Your task to perform on an android device: change text size in settings app Image 0: 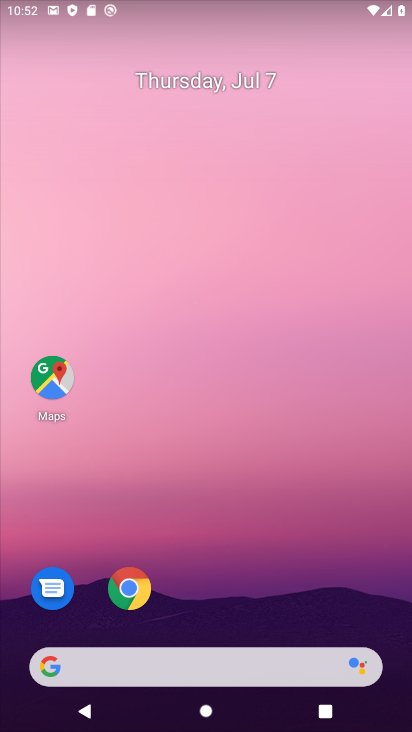
Step 0: drag from (233, 643) to (168, 148)
Your task to perform on an android device: change text size in settings app Image 1: 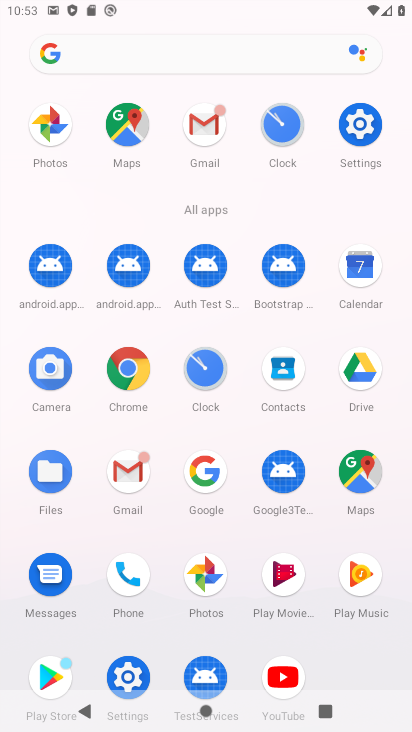
Step 1: click (354, 121)
Your task to perform on an android device: change text size in settings app Image 2: 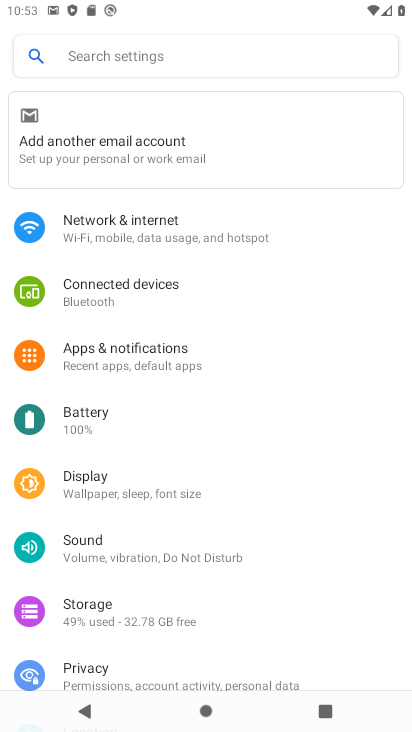
Step 2: drag from (181, 553) to (149, 306)
Your task to perform on an android device: change text size in settings app Image 3: 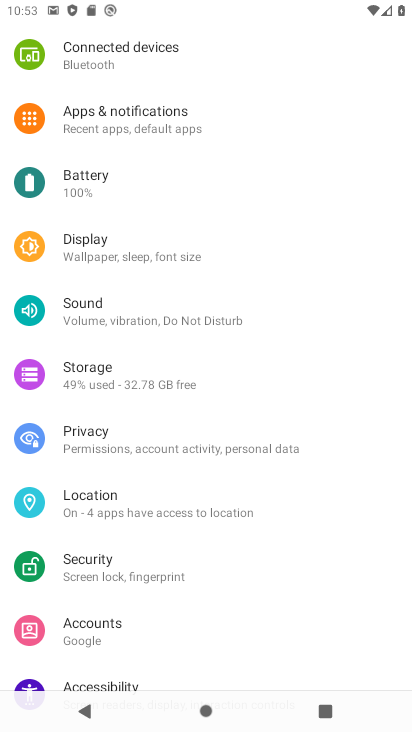
Step 3: click (124, 239)
Your task to perform on an android device: change text size in settings app Image 4: 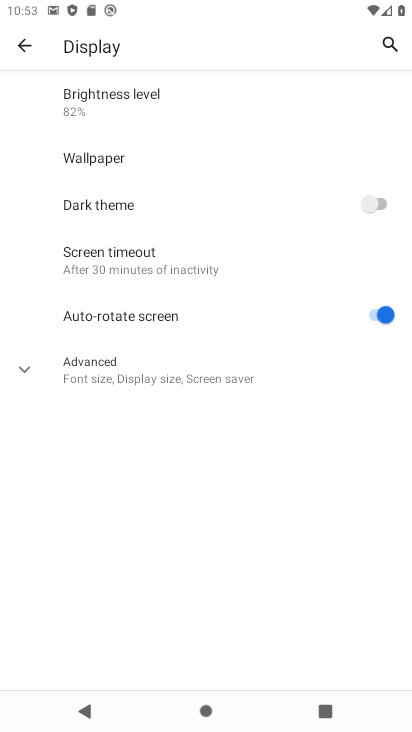
Step 4: click (145, 365)
Your task to perform on an android device: change text size in settings app Image 5: 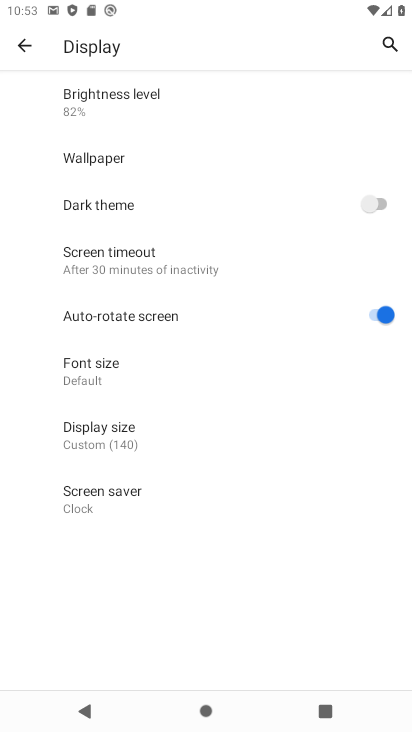
Step 5: click (108, 383)
Your task to perform on an android device: change text size in settings app Image 6: 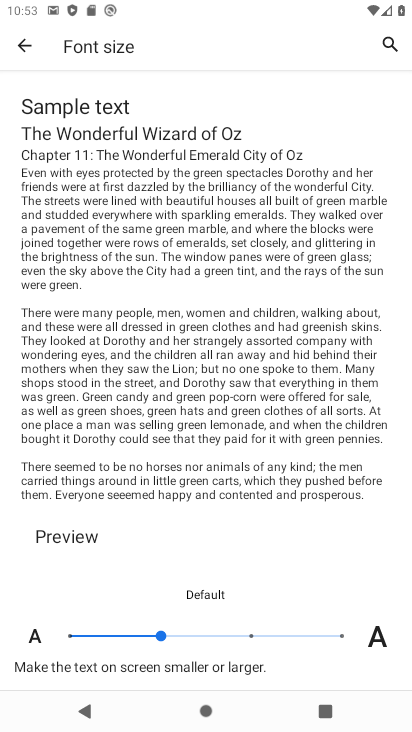
Step 6: click (244, 632)
Your task to perform on an android device: change text size in settings app Image 7: 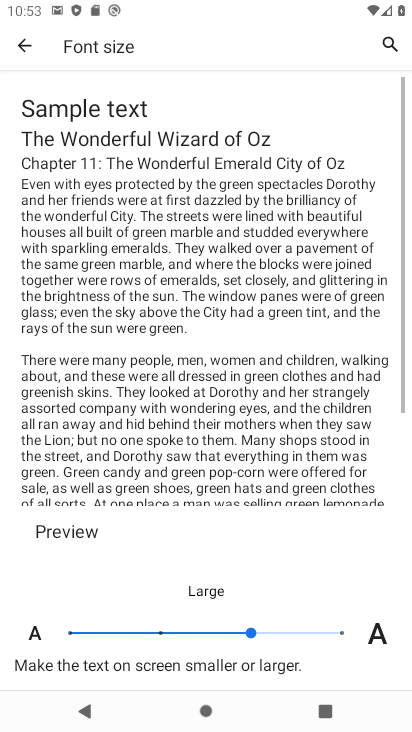
Step 7: task complete